Your task to perform on an android device: Search for pizza restaurants on Maps Image 0: 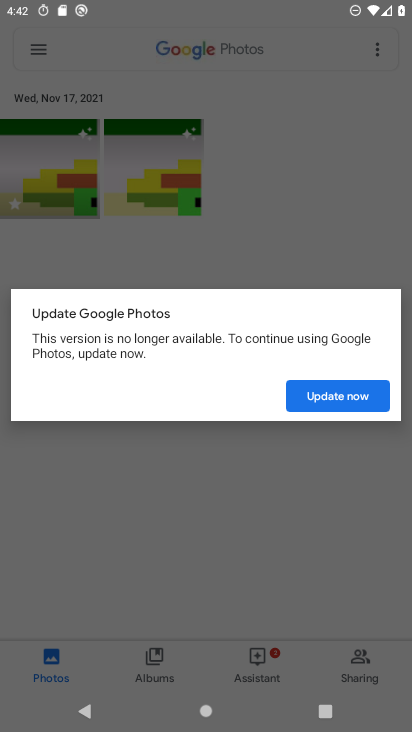
Step 0: press home button
Your task to perform on an android device: Search for pizza restaurants on Maps Image 1: 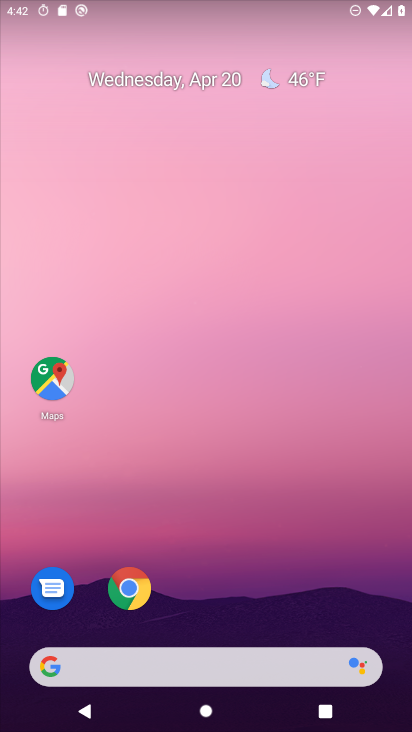
Step 1: drag from (225, 669) to (225, 142)
Your task to perform on an android device: Search for pizza restaurants on Maps Image 2: 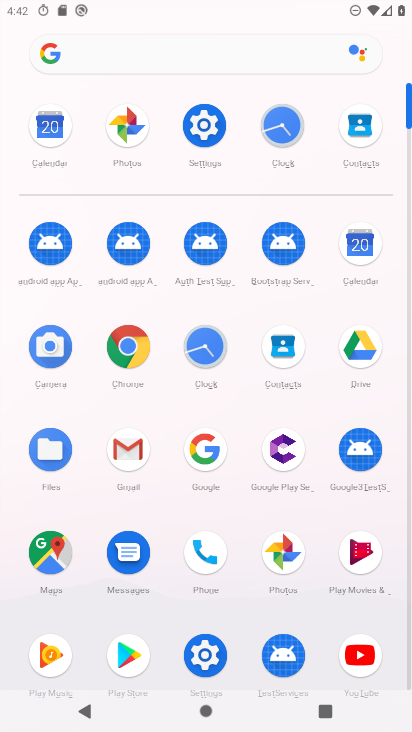
Step 2: click (46, 554)
Your task to perform on an android device: Search for pizza restaurants on Maps Image 3: 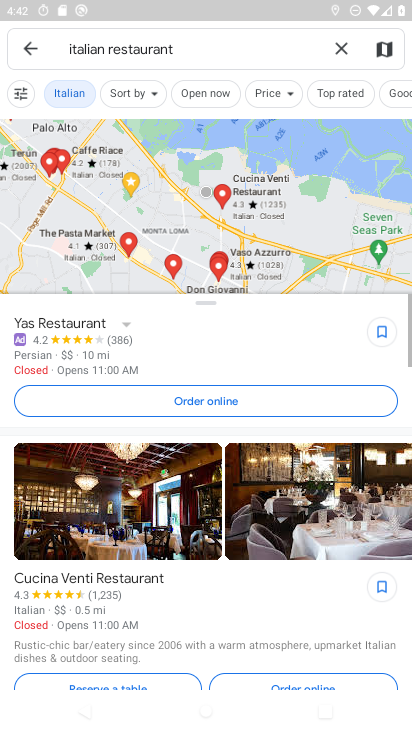
Step 3: click (342, 45)
Your task to perform on an android device: Search for pizza restaurants on Maps Image 4: 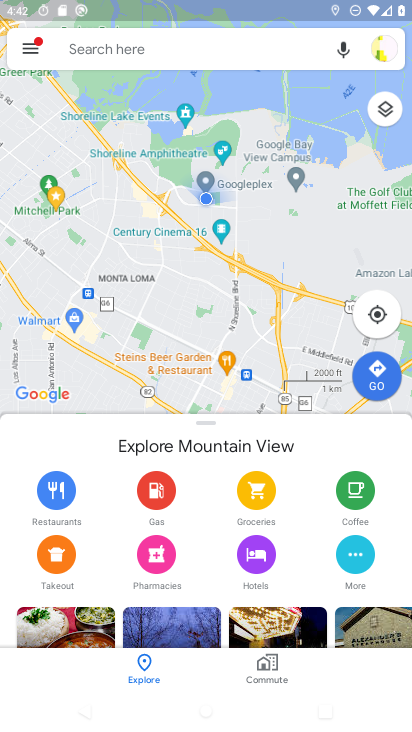
Step 4: click (128, 43)
Your task to perform on an android device: Search for pizza restaurants on Maps Image 5: 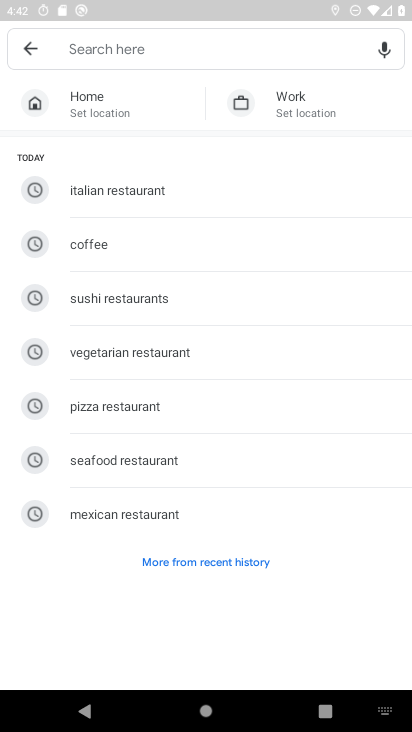
Step 5: type "pizza restaurants"
Your task to perform on an android device: Search for pizza restaurants on Maps Image 6: 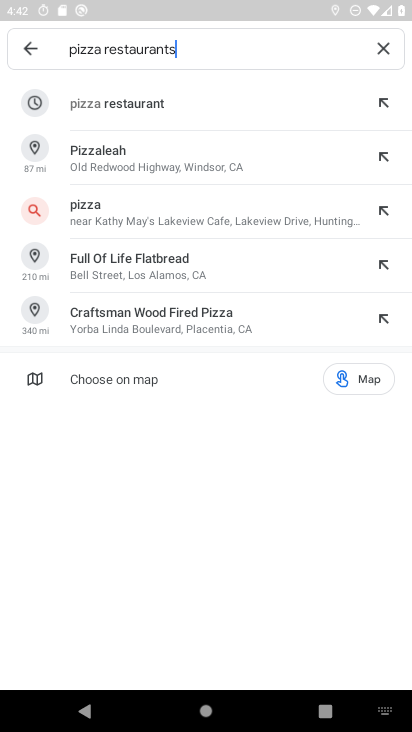
Step 6: click (137, 103)
Your task to perform on an android device: Search for pizza restaurants on Maps Image 7: 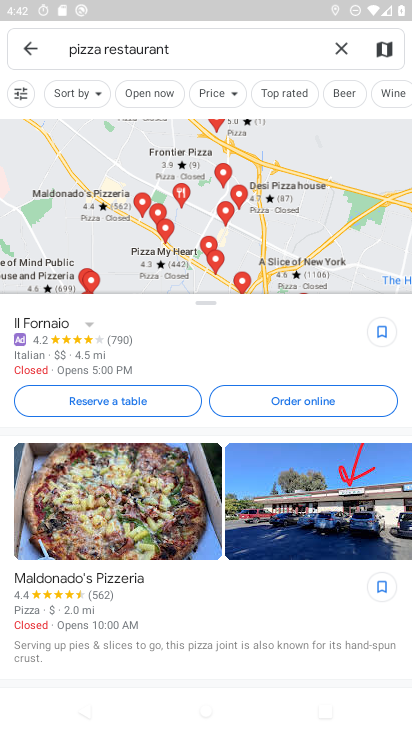
Step 7: task complete